Your task to perform on an android device: toggle wifi Image 0: 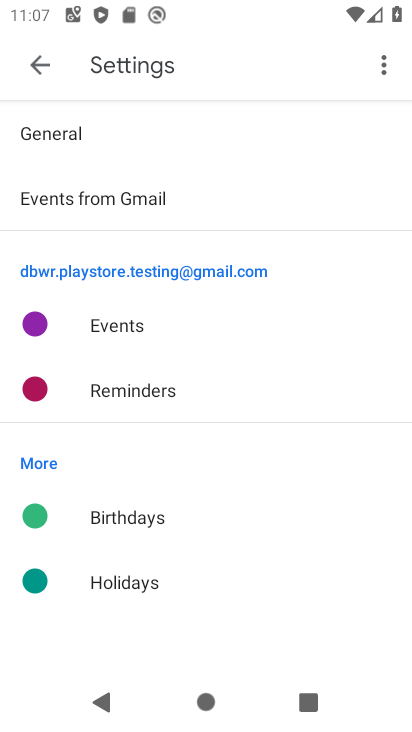
Step 0: press home button
Your task to perform on an android device: toggle wifi Image 1: 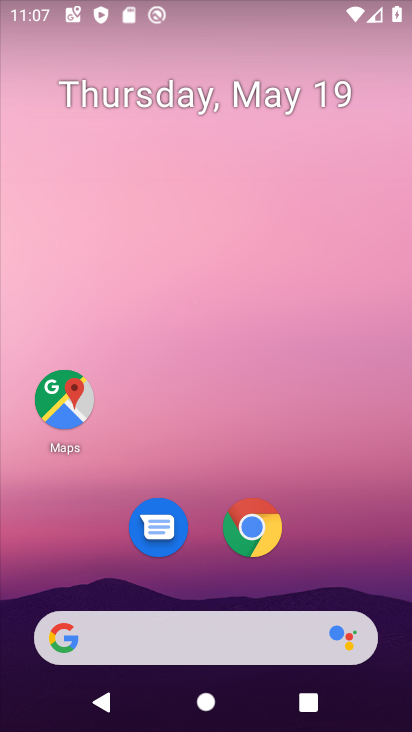
Step 1: drag from (238, 488) to (353, 9)
Your task to perform on an android device: toggle wifi Image 2: 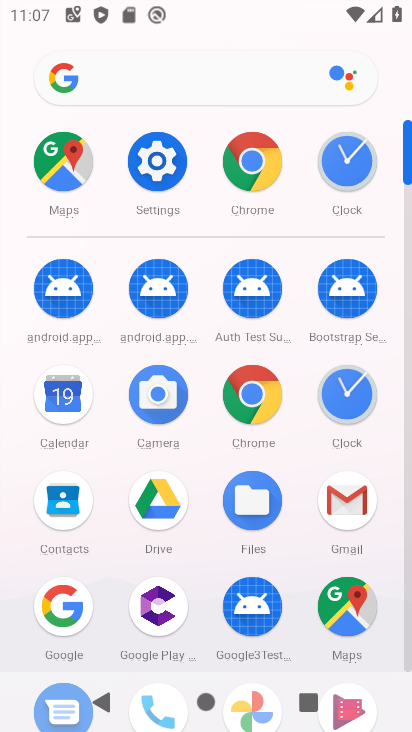
Step 2: click (166, 188)
Your task to perform on an android device: toggle wifi Image 3: 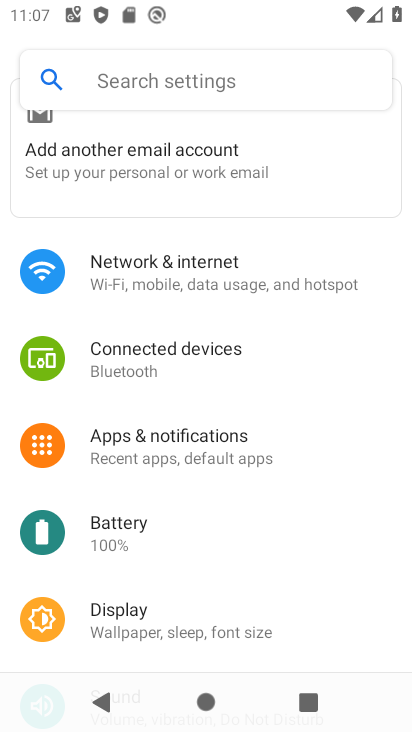
Step 3: drag from (204, 214) to (174, 374)
Your task to perform on an android device: toggle wifi Image 4: 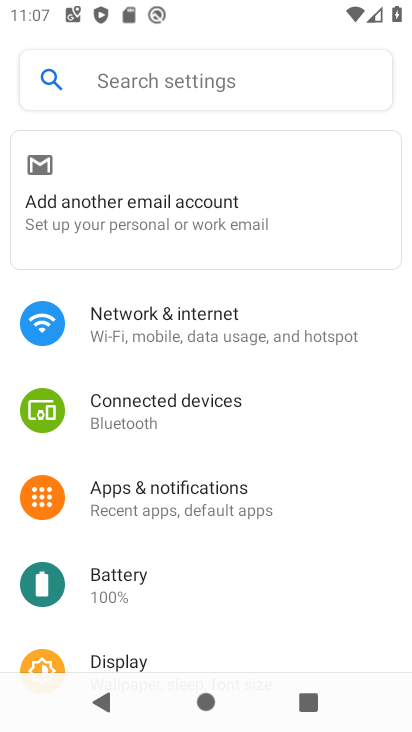
Step 4: click (192, 335)
Your task to perform on an android device: toggle wifi Image 5: 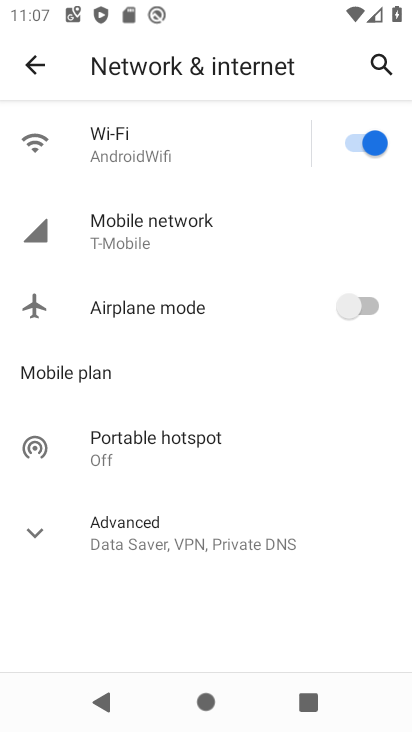
Step 5: click (337, 144)
Your task to perform on an android device: toggle wifi Image 6: 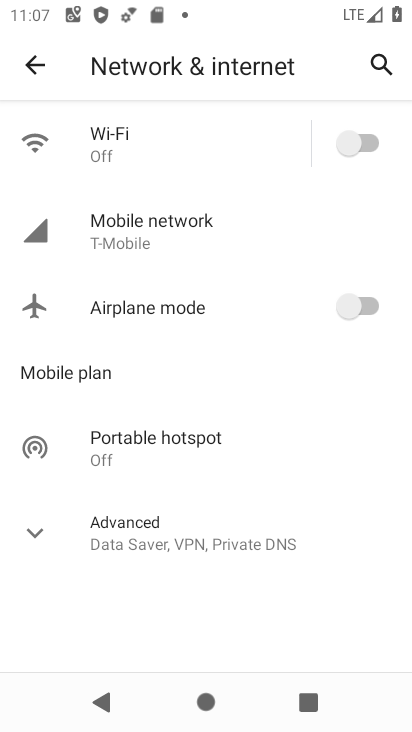
Step 6: task complete